Your task to perform on an android device: change notification settings in the gmail app Image 0: 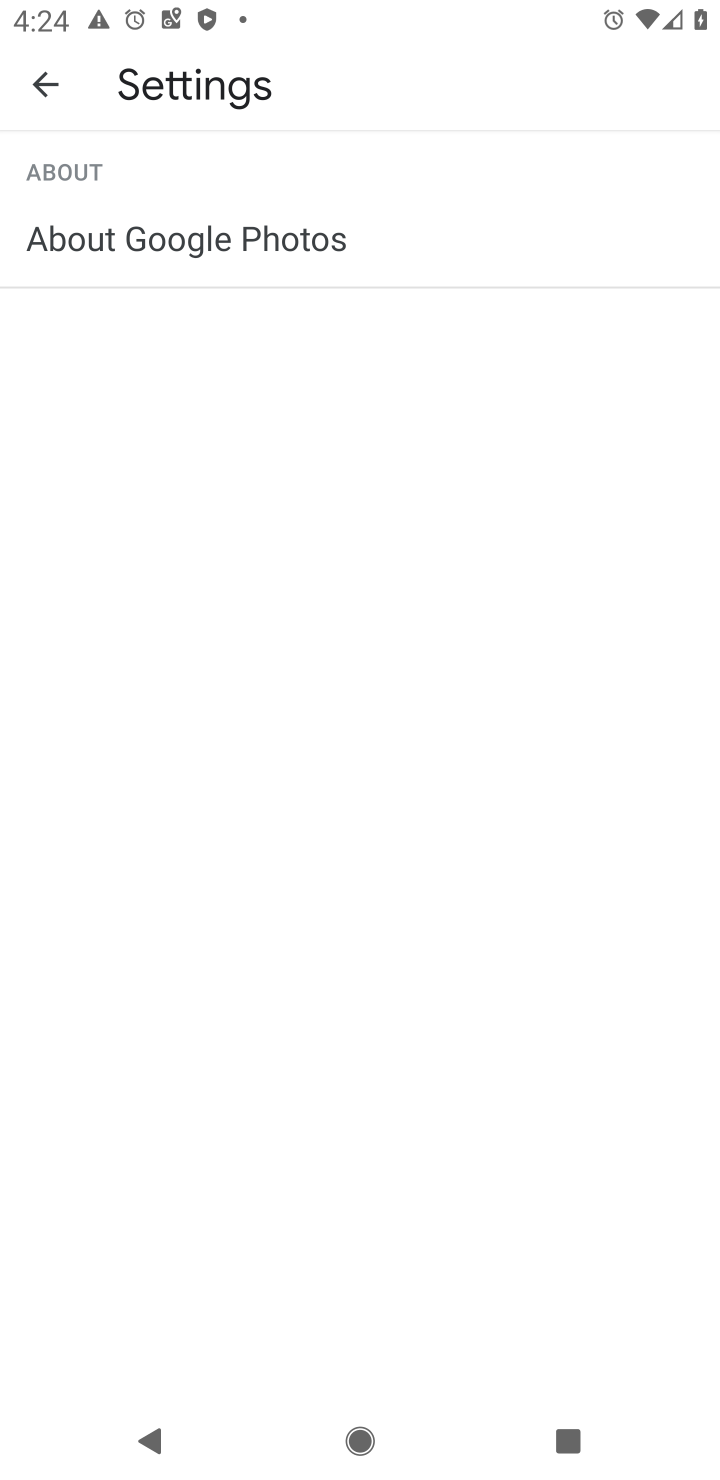
Step 0: press home button
Your task to perform on an android device: change notification settings in the gmail app Image 1: 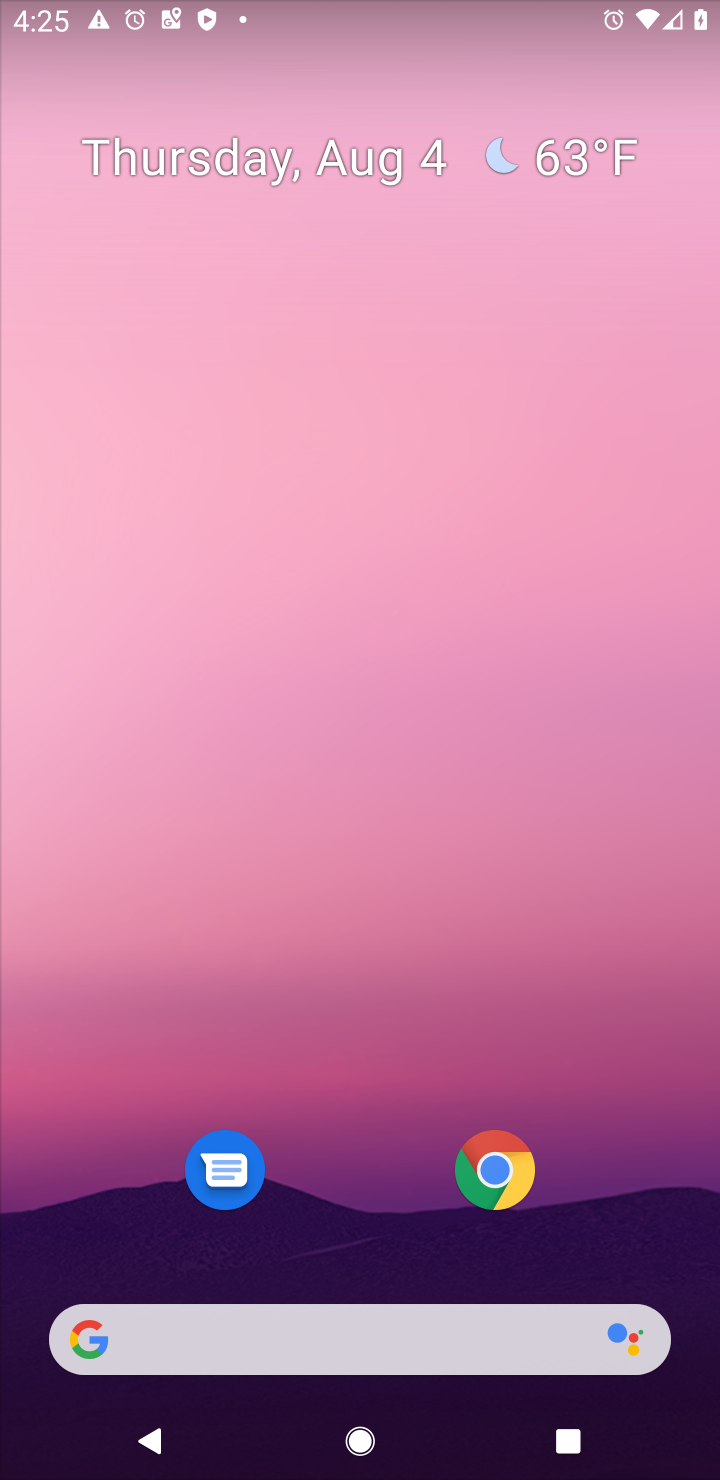
Step 1: drag from (656, 1230) to (573, 116)
Your task to perform on an android device: change notification settings in the gmail app Image 2: 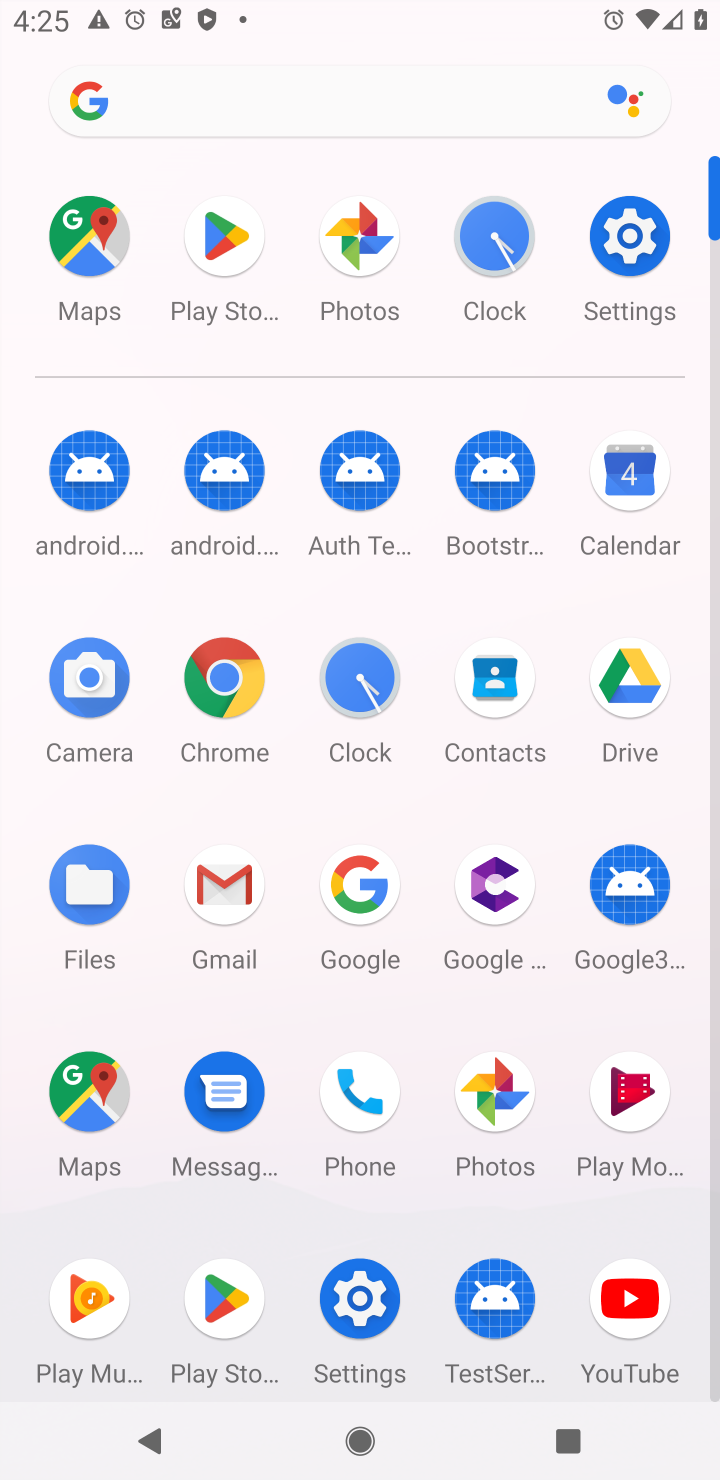
Step 2: click (221, 885)
Your task to perform on an android device: change notification settings in the gmail app Image 3: 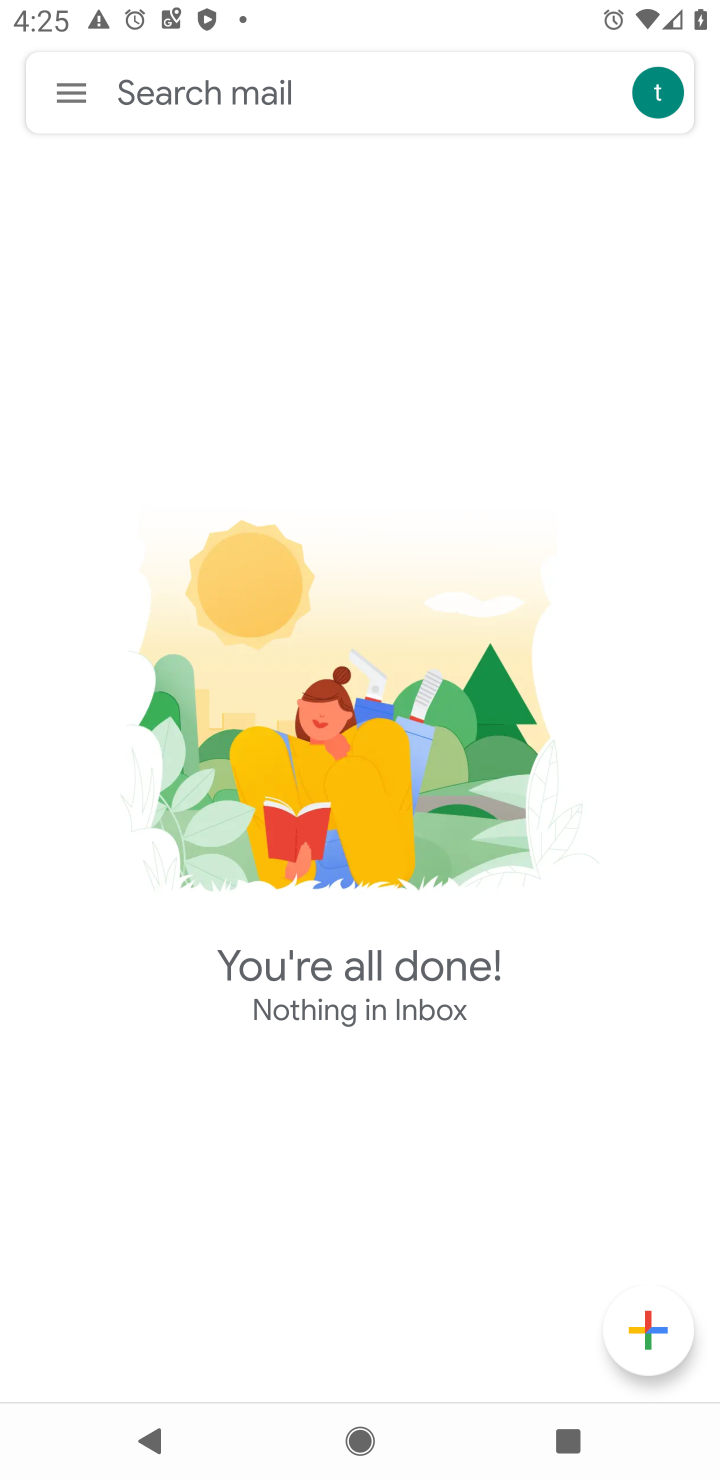
Step 3: click (73, 112)
Your task to perform on an android device: change notification settings in the gmail app Image 4: 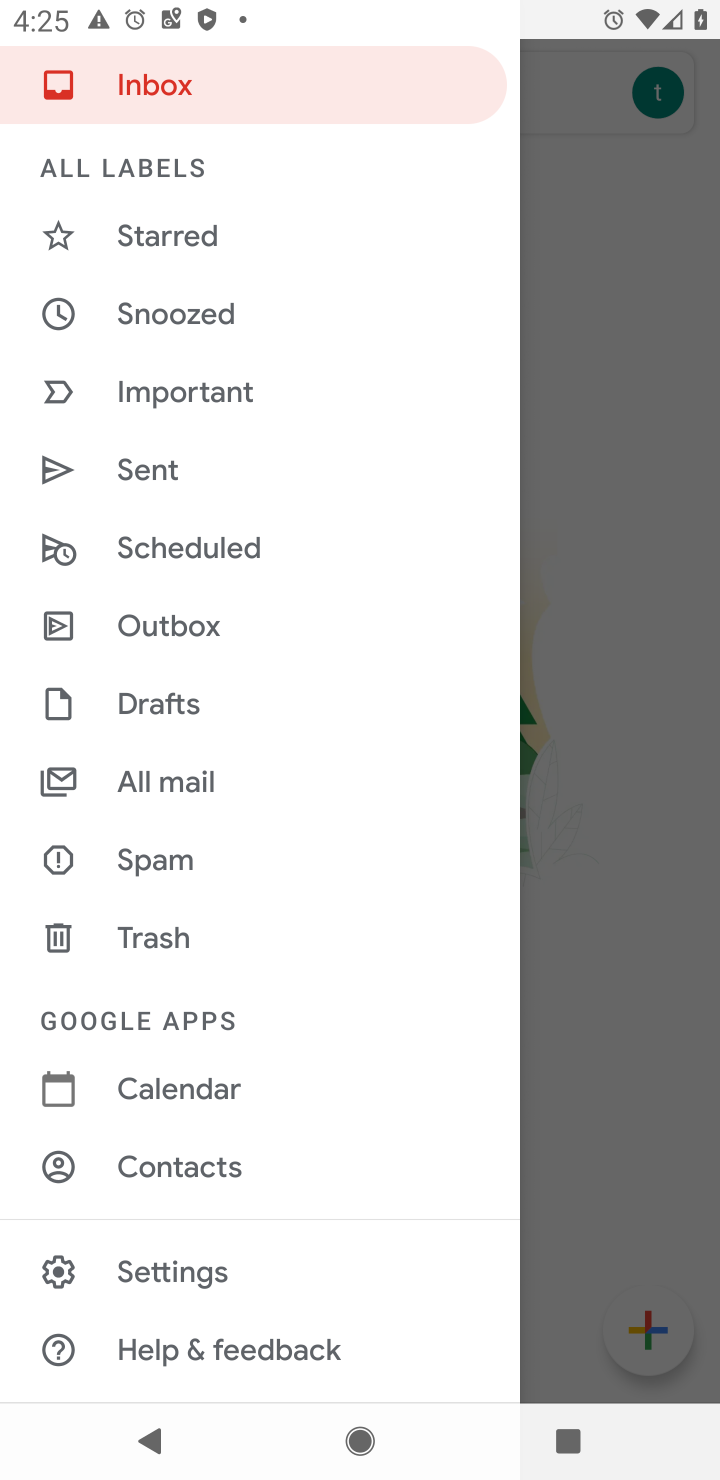
Step 4: click (165, 1245)
Your task to perform on an android device: change notification settings in the gmail app Image 5: 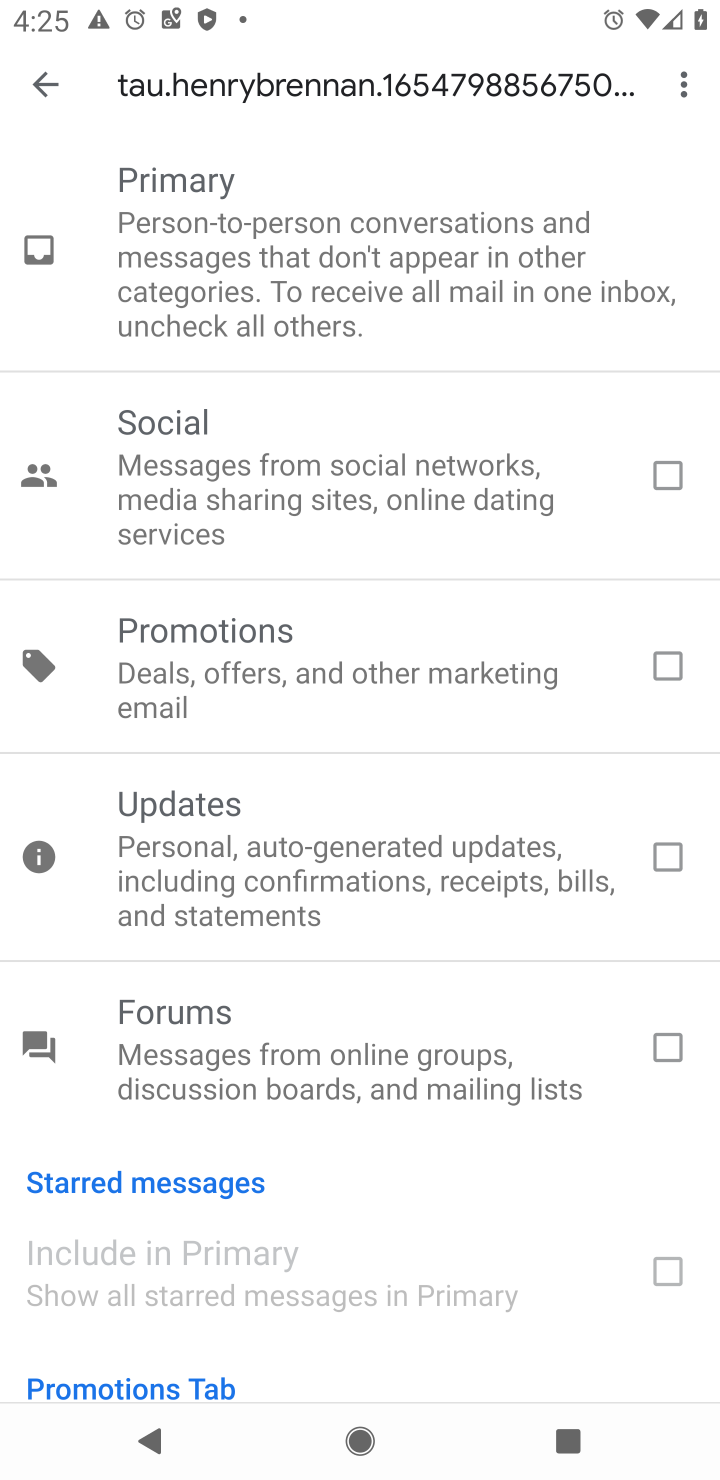
Step 5: drag from (477, 1220) to (547, 865)
Your task to perform on an android device: change notification settings in the gmail app Image 6: 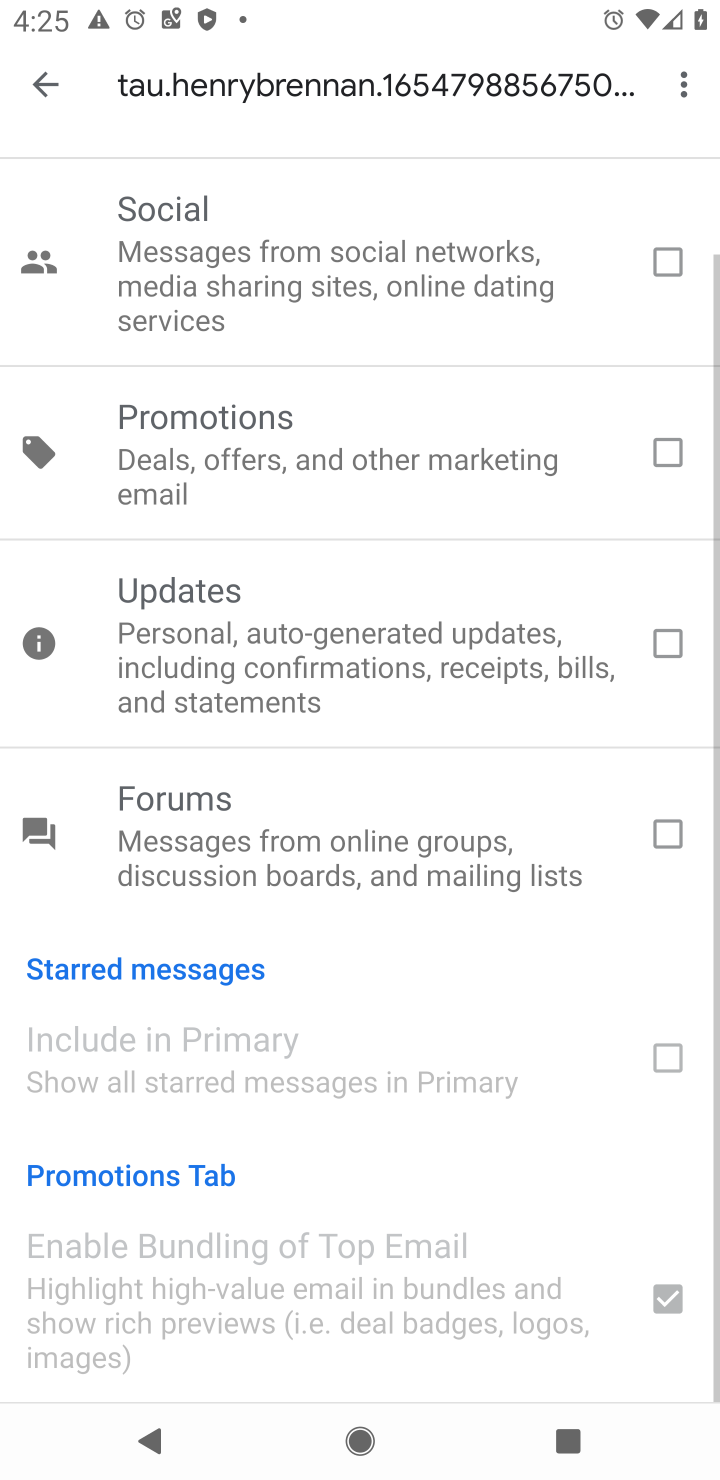
Step 6: press back button
Your task to perform on an android device: change notification settings in the gmail app Image 7: 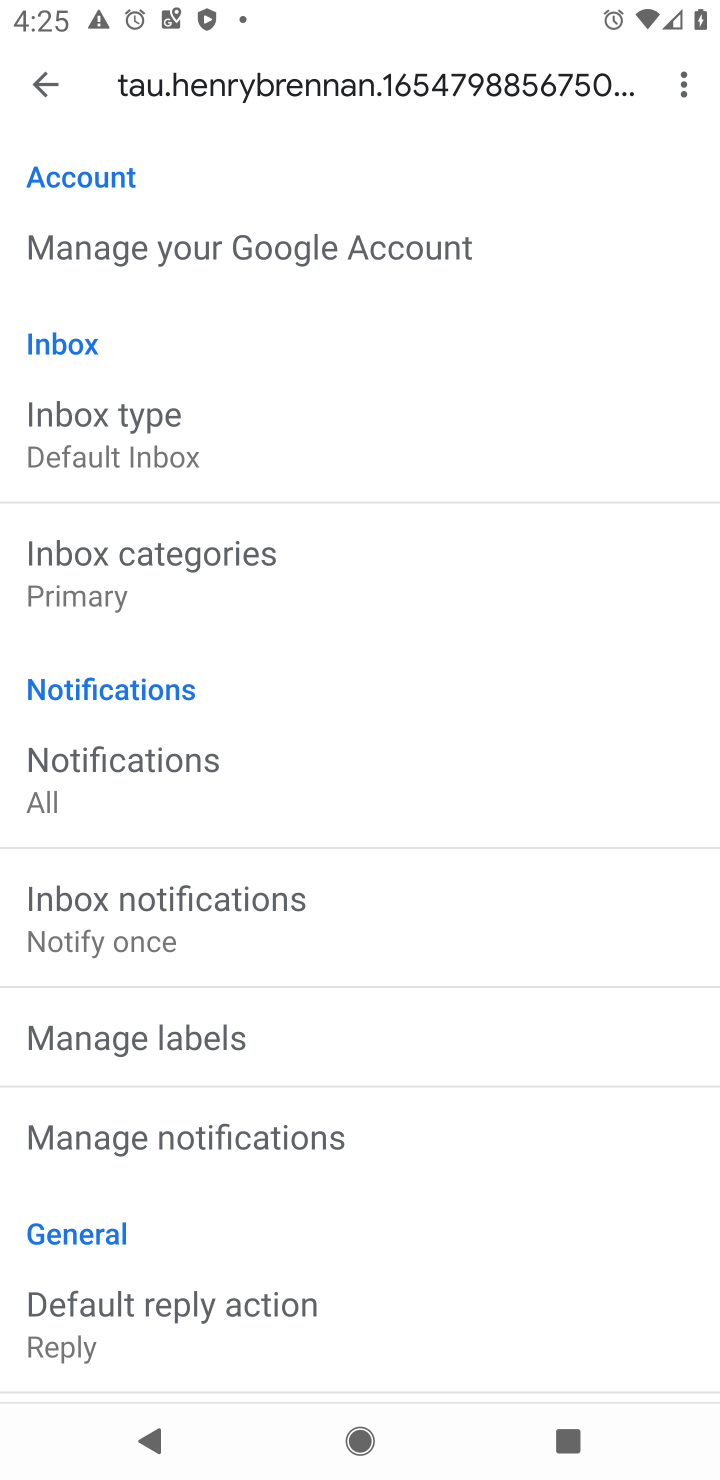
Step 7: click (136, 1116)
Your task to perform on an android device: change notification settings in the gmail app Image 8: 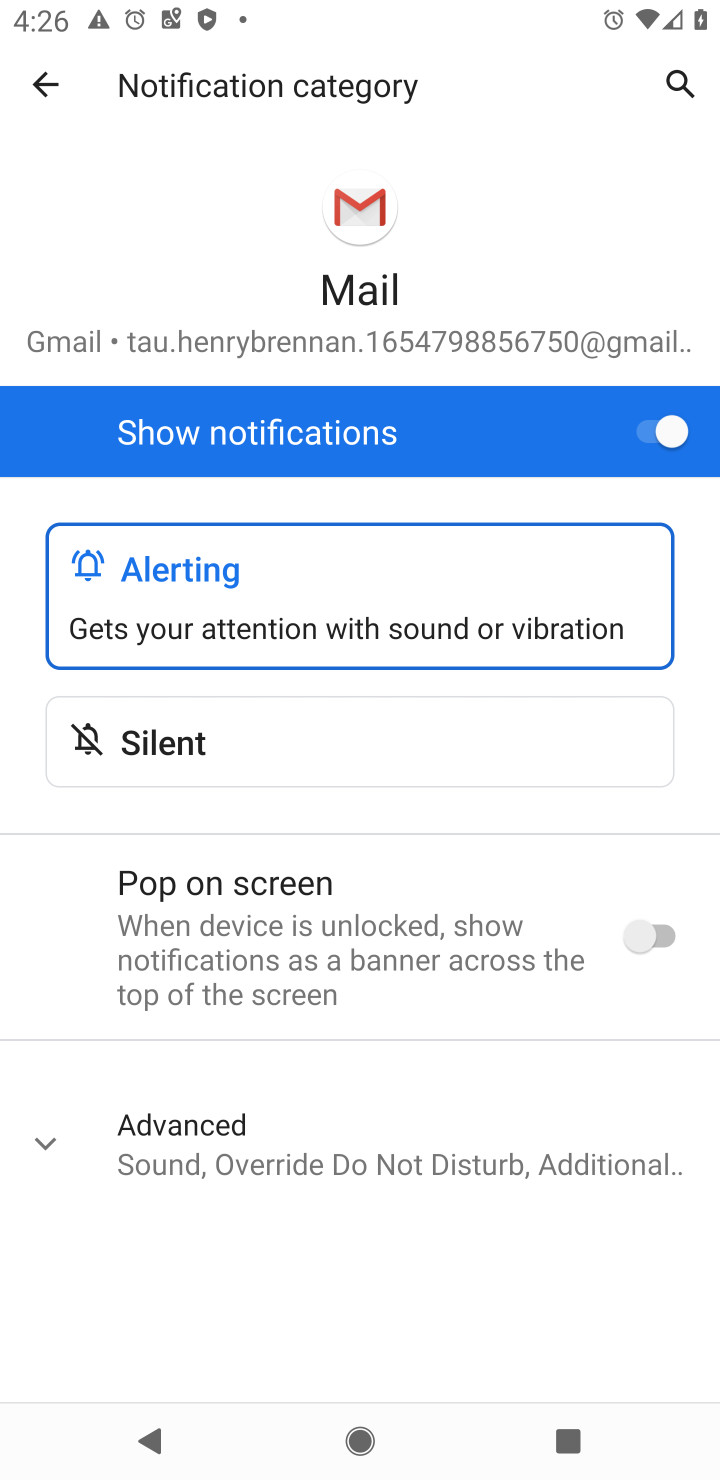
Step 8: click (639, 427)
Your task to perform on an android device: change notification settings in the gmail app Image 9: 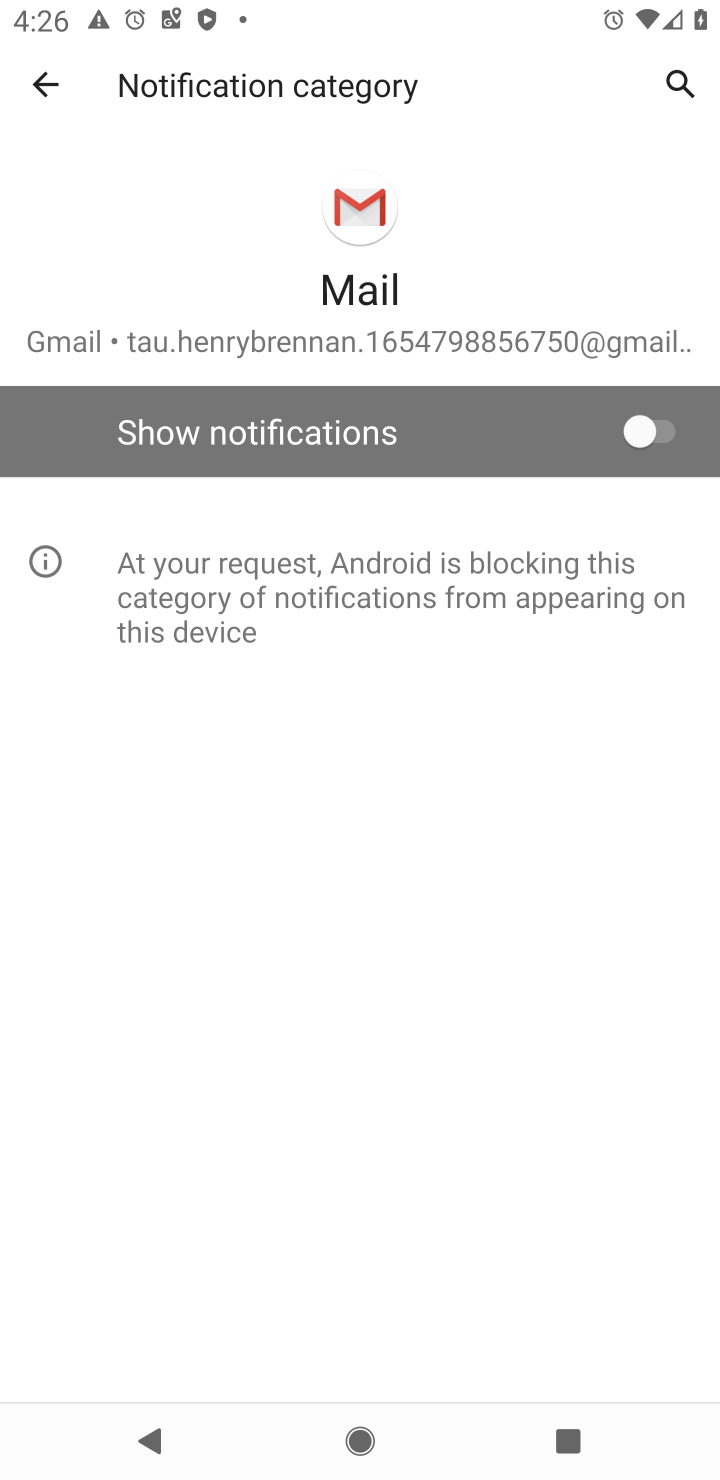
Step 9: task complete